Your task to perform on an android device: Open the phone app and click the voicemail tab. Image 0: 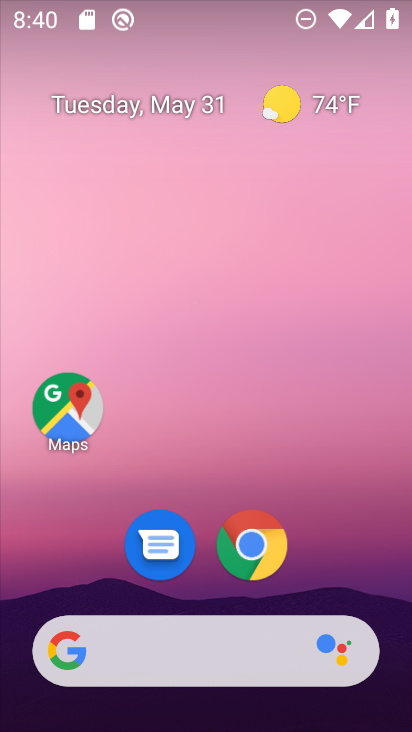
Step 0: drag from (340, 513) to (226, 29)
Your task to perform on an android device: Open the phone app and click the voicemail tab. Image 1: 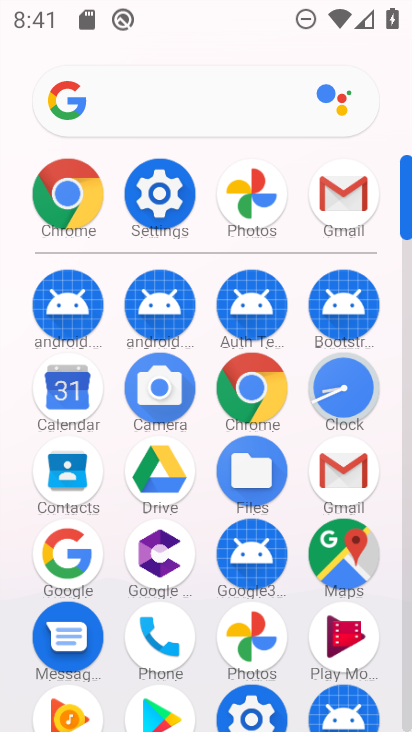
Step 1: click (164, 629)
Your task to perform on an android device: Open the phone app and click the voicemail tab. Image 2: 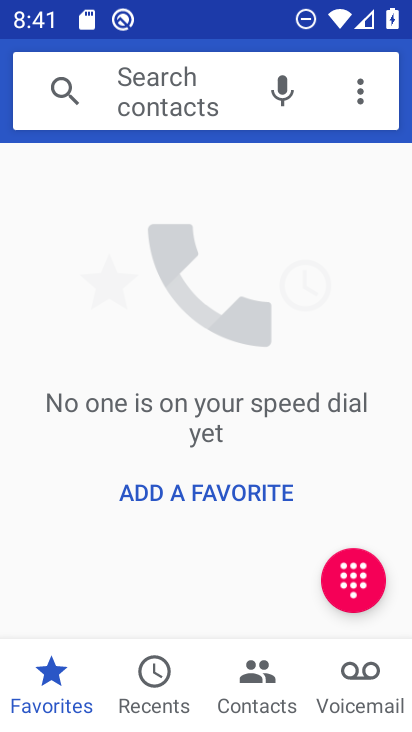
Step 2: click (348, 668)
Your task to perform on an android device: Open the phone app and click the voicemail tab. Image 3: 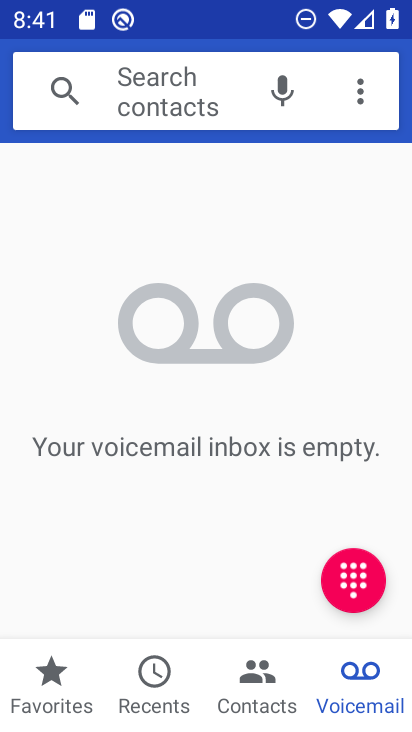
Step 3: task complete